Your task to perform on an android device: Go to Android settings Image 0: 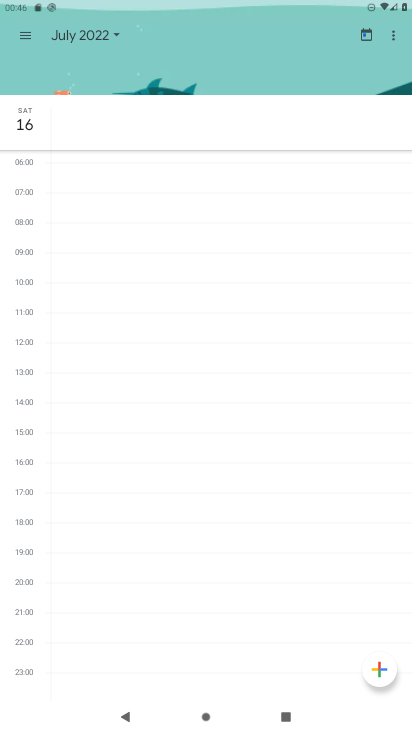
Step 0: press home button
Your task to perform on an android device: Go to Android settings Image 1: 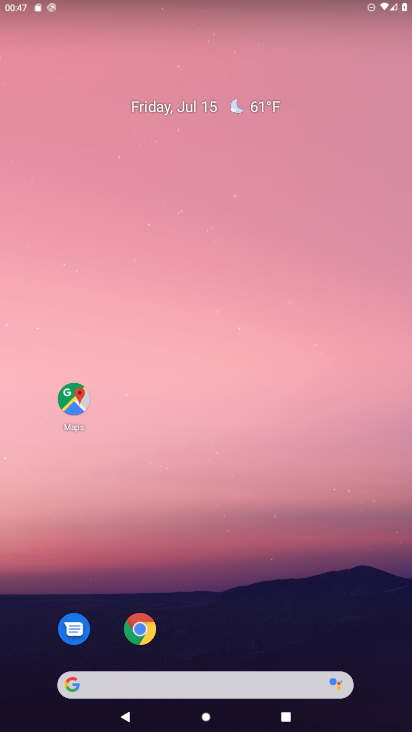
Step 1: drag from (174, 664) to (196, 104)
Your task to perform on an android device: Go to Android settings Image 2: 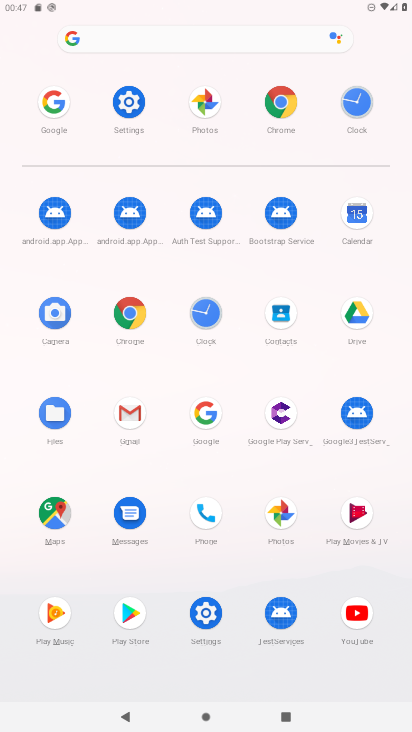
Step 2: click (131, 95)
Your task to perform on an android device: Go to Android settings Image 3: 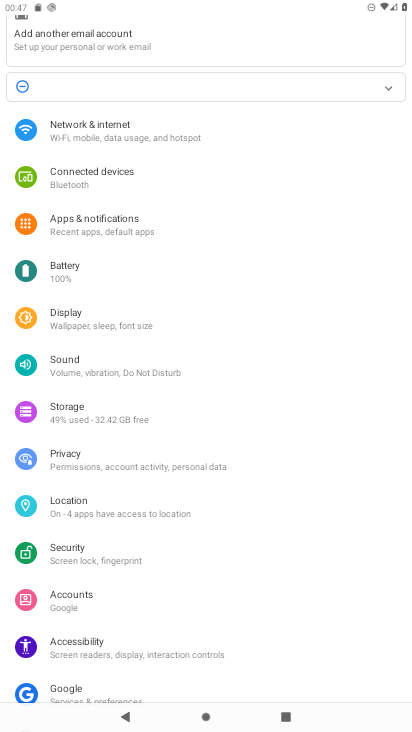
Step 3: task complete